Your task to perform on an android device: Go to display settings Image 0: 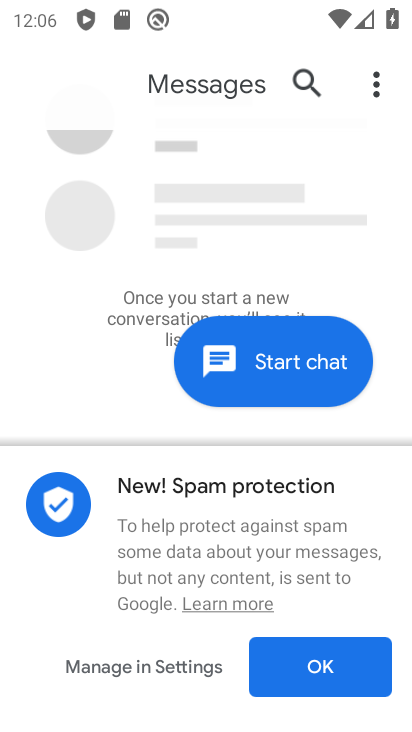
Step 0: press home button
Your task to perform on an android device: Go to display settings Image 1: 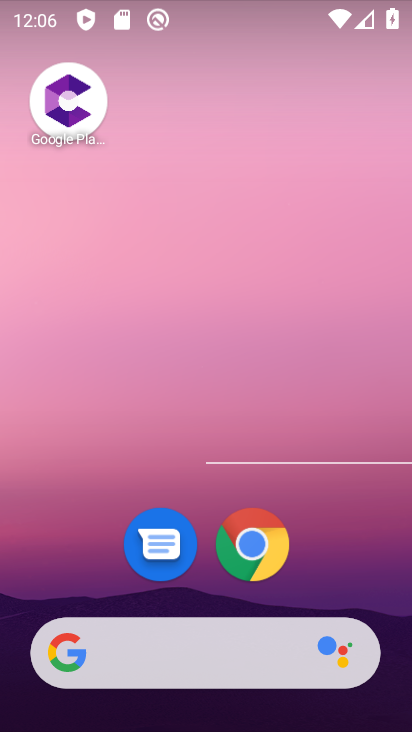
Step 1: drag from (297, 411) to (258, 46)
Your task to perform on an android device: Go to display settings Image 2: 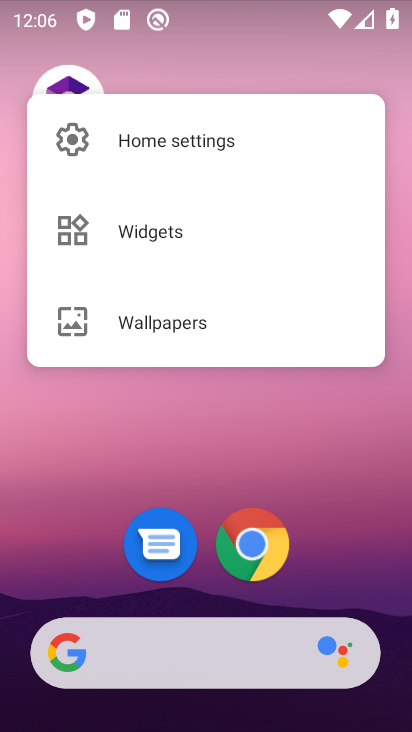
Step 2: click (181, 452)
Your task to perform on an android device: Go to display settings Image 3: 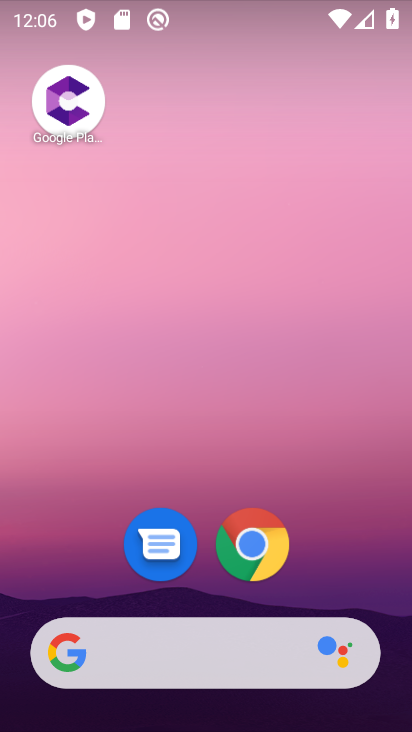
Step 3: drag from (181, 452) to (182, 125)
Your task to perform on an android device: Go to display settings Image 4: 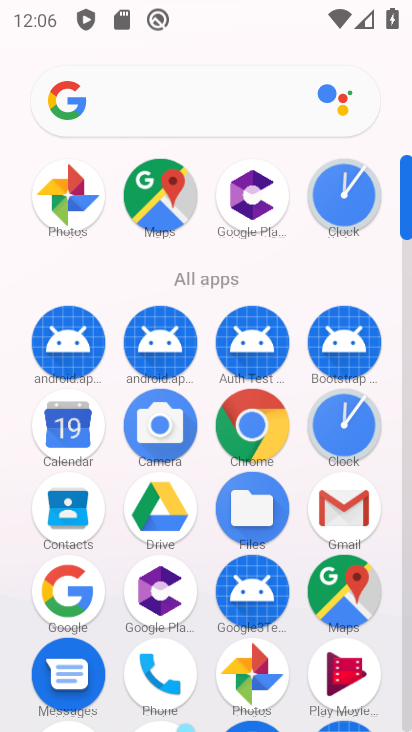
Step 4: click (400, 634)
Your task to perform on an android device: Go to display settings Image 5: 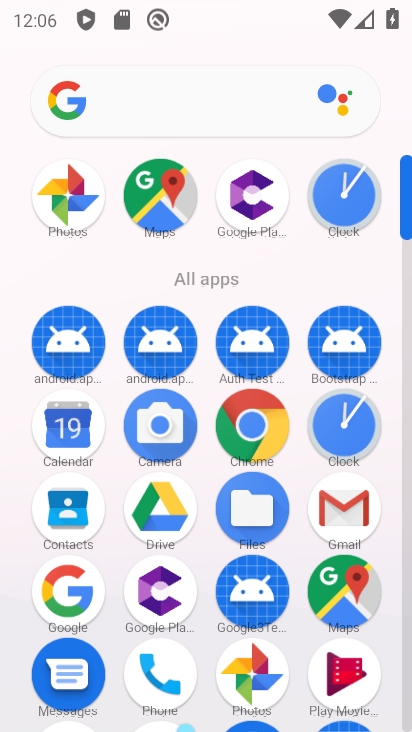
Step 5: click (409, 636)
Your task to perform on an android device: Go to display settings Image 6: 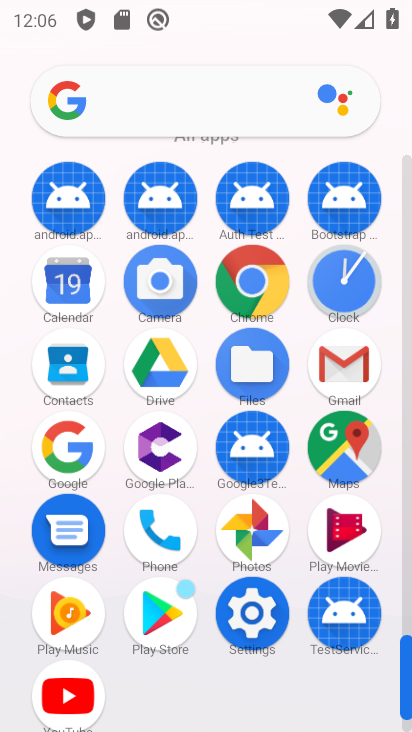
Step 6: click (236, 630)
Your task to perform on an android device: Go to display settings Image 7: 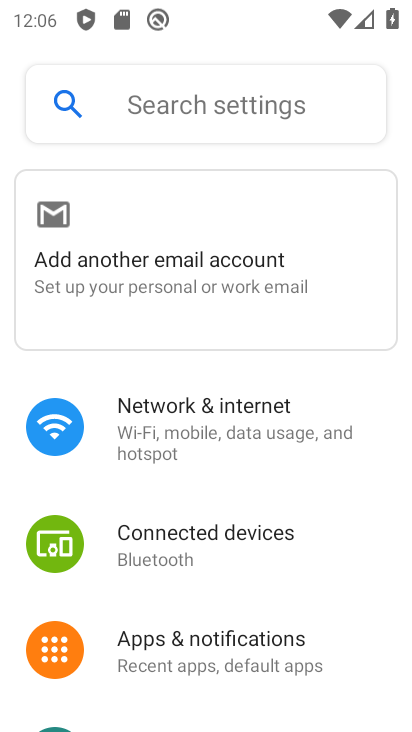
Step 7: drag from (153, 626) to (165, 457)
Your task to perform on an android device: Go to display settings Image 8: 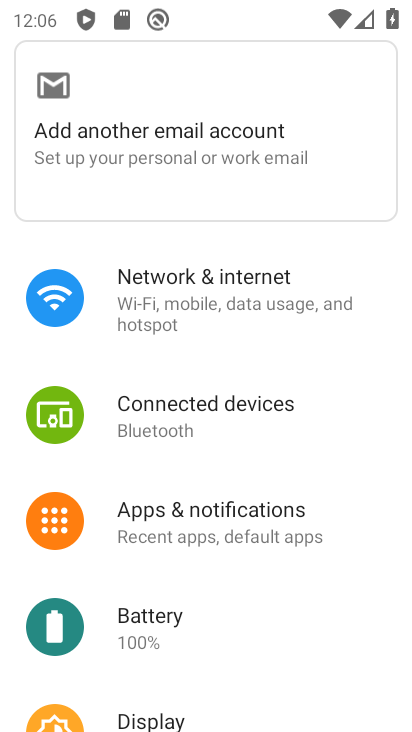
Step 8: click (183, 691)
Your task to perform on an android device: Go to display settings Image 9: 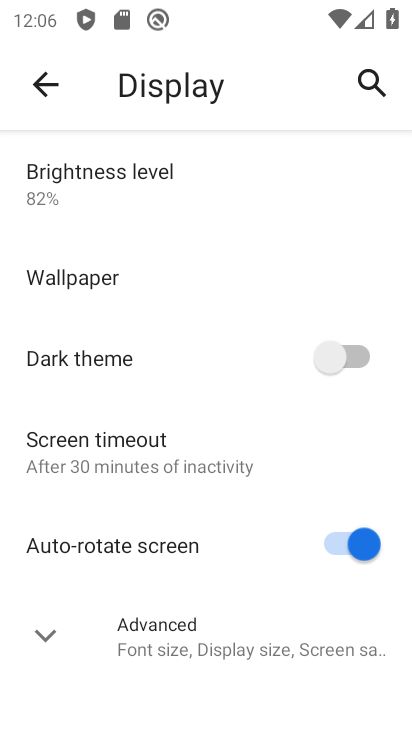
Step 9: task complete